Your task to perform on an android device: Go to calendar. Show me events next week Image 0: 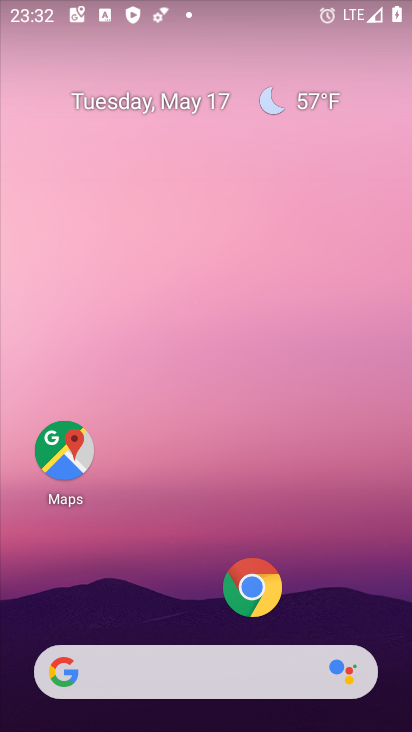
Step 0: drag from (52, 580) to (256, 232)
Your task to perform on an android device: Go to calendar. Show me events next week Image 1: 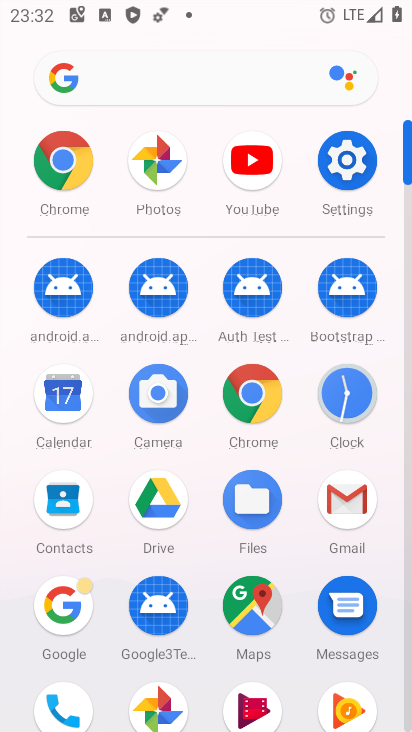
Step 1: click (57, 395)
Your task to perform on an android device: Go to calendar. Show me events next week Image 2: 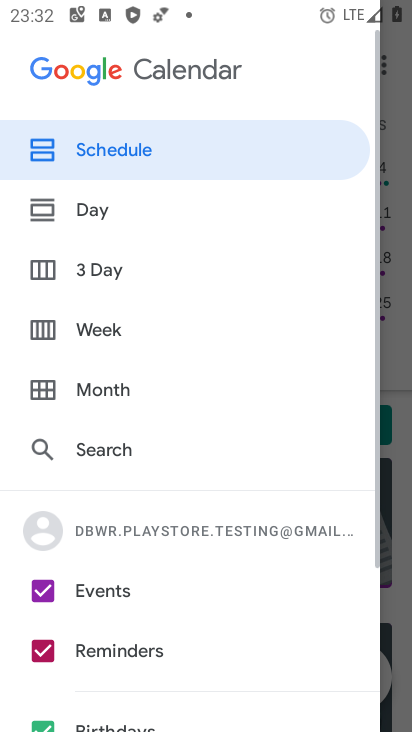
Step 2: task complete